Your task to perform on an android device: Open Google Chrome and open the bookmarks view Image 0: 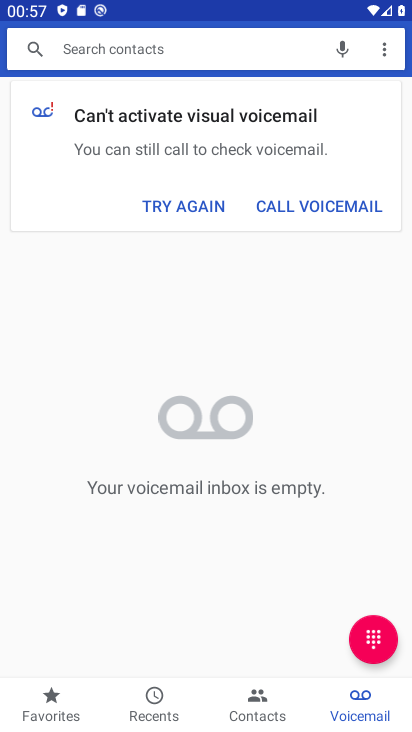
Step 0: press home button
Your task to perform on an android device: Open Google Chrome and open the bookmarks view Image 1: 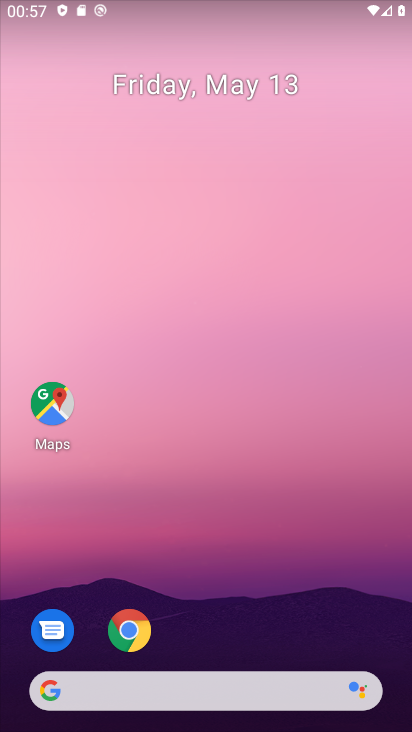
Step 1: drag from (218, 723) to (347, 200)
Your task to perform on an android device: Open Google Chrome and open the bookmarks view Image 2: 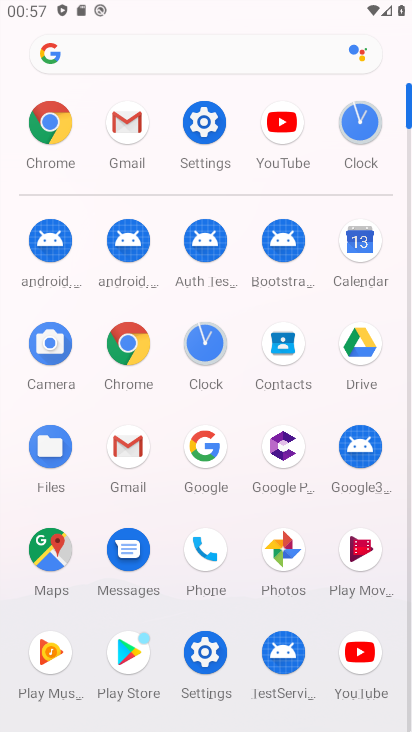
Step 2: click (118, 346)
Your task to perform on an android device: Open Google Chrome and open the bookmarks view Image 3: 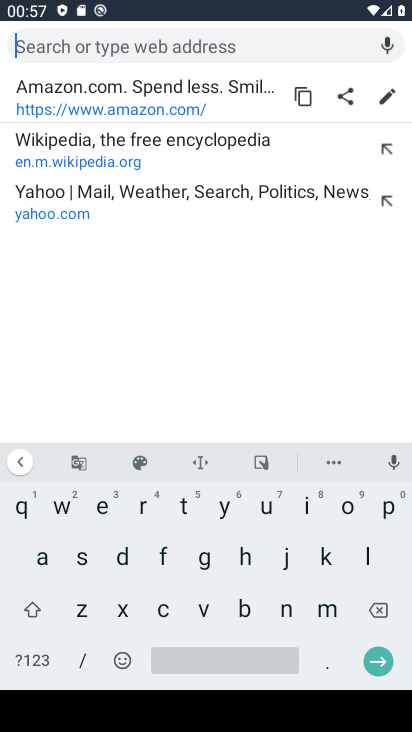
Step 3: press back button
Your task to perform on an android device: Open Google Chrome and open the bookmarks view Image 4: 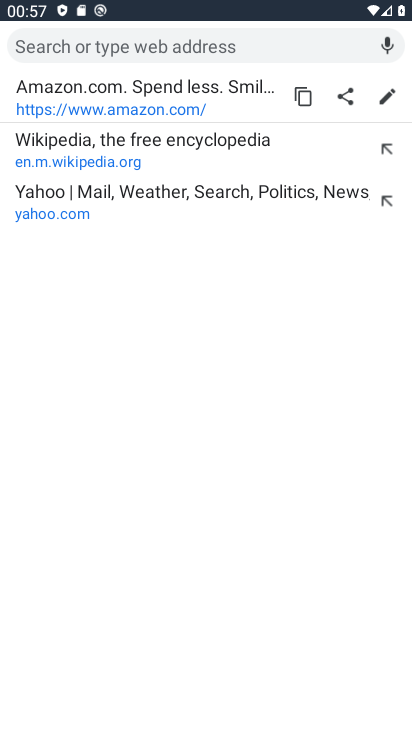
Step 4: press back button
Your task to perform on an android device: Open Google Chrome and open the bookmarks view Image 5: 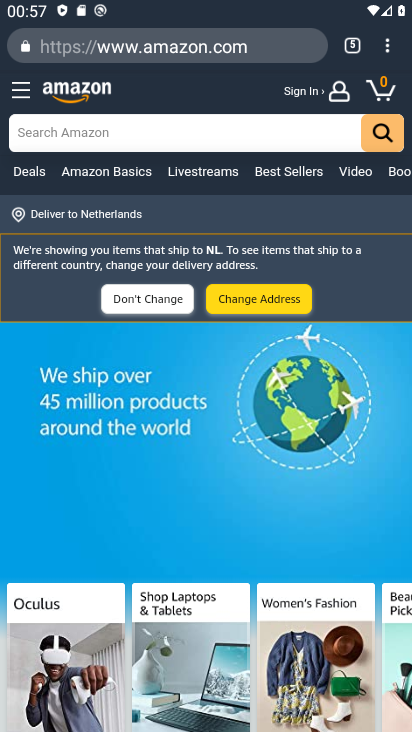
Step 5: click (383, 58)
Your task to perform on an android device: Open Google Chrome and open the bookmarks view Image 6: 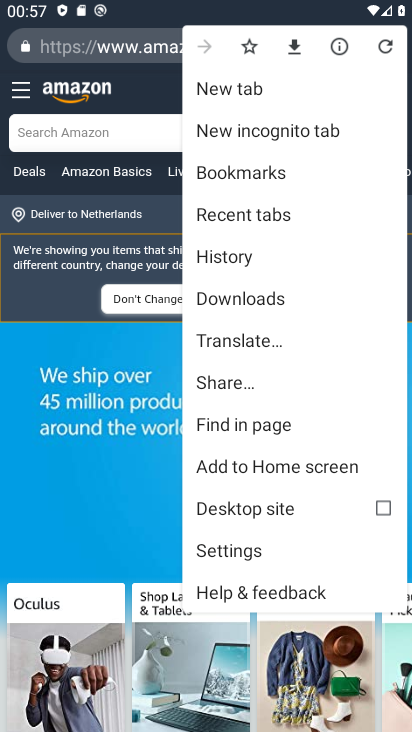
Step 6: click (247, 163)
Your task to perform on an android device: Open Google Chrome and open the bookmarks view Image 7: 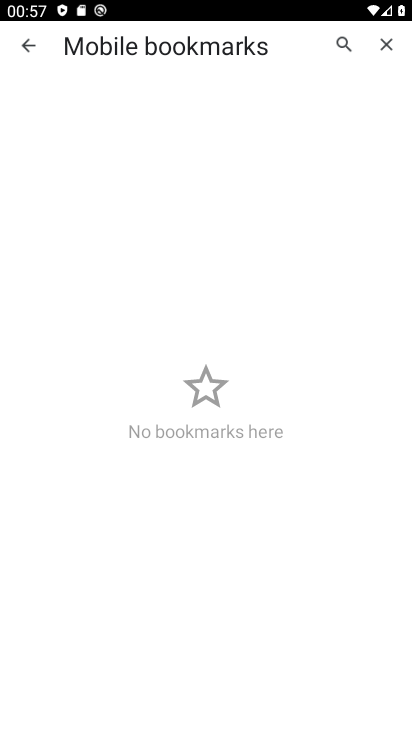
Step 7: task complete